Your task to perform on an android device: change notification settings in the gmail app Image 0: 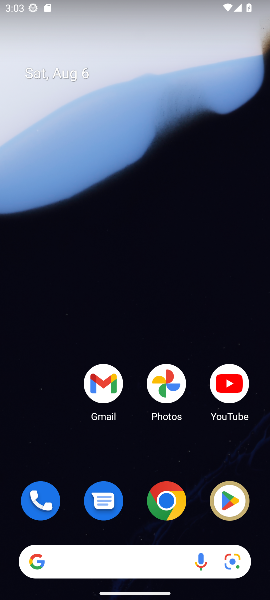
Step 0: drag from (196, 452) to (267, 67)
Your task to perform on an android device: change notification settings in the gmail app Image 1: 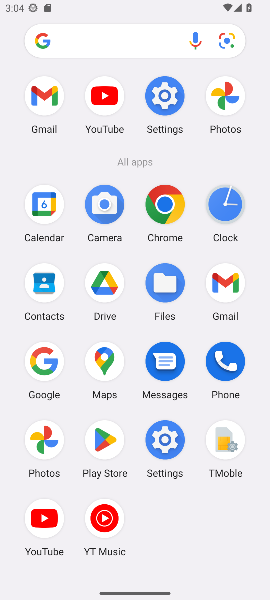
Step 1: click (222, 279)
Your task to perform on an android device: change notification settings in the gmail app Image 2: 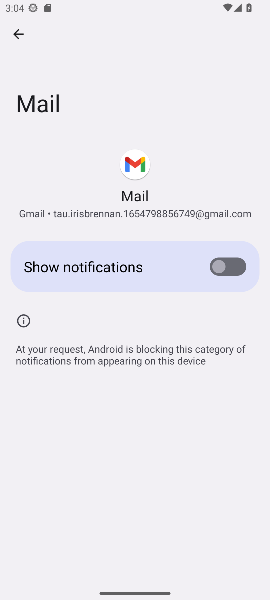
Step 2: click (233, 265)
Your task to perform on an android device: change notification settings in the gmail app Image 3: 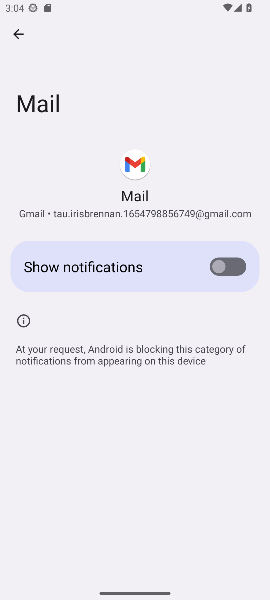
Step 3: task complete